Your task to perform on an android device: Open Google Chrome and open the bookmarks view Image 0: 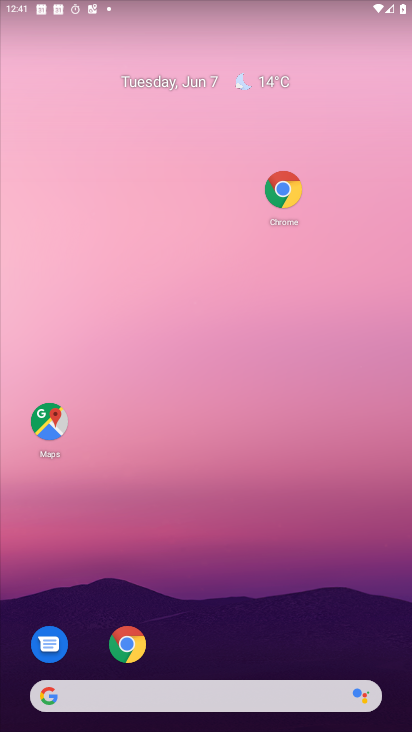
Step 0: click (126, 645)
Your task to perform on an android device: Open Google Chrome and open the bookmarks view Image 1: 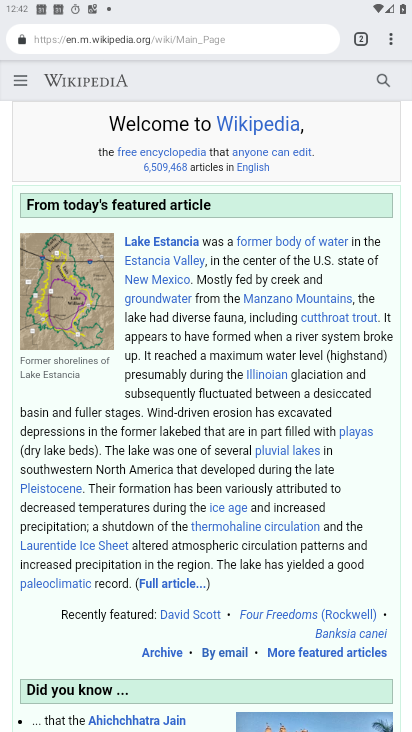
Step 1: task complete